Your task to perform on an android device: find which apps use the phone's location Image 0: 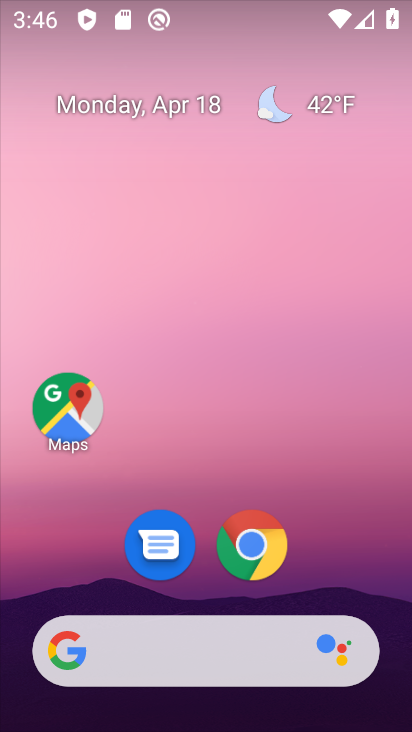
Step 0: drag from (348, 560) to (323, 107)
Your task to perform on an android device: find which apps use the phone's location Image 1: 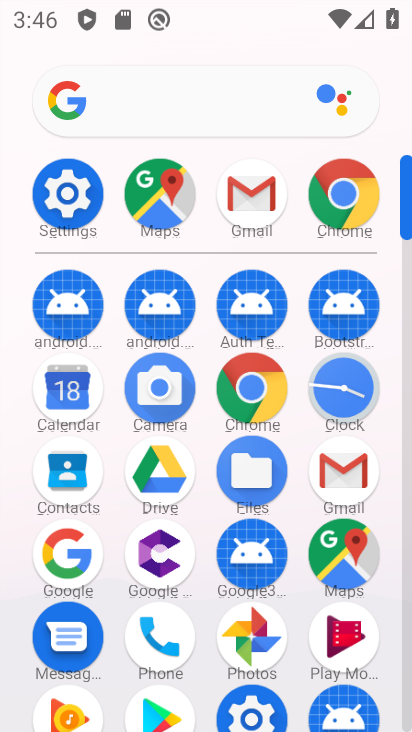
Step 1: drag from (198, 582) to (209, 338)
Your task to perform on an android device: find which apps use the phone's location Image 2: 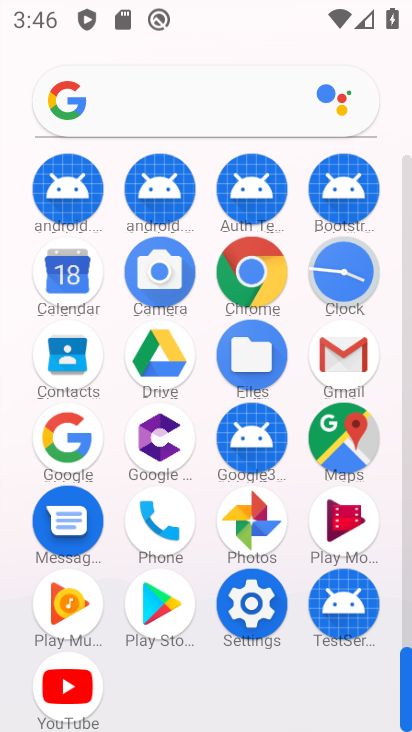
Step 2: click (249, 605)
Your task to perform on an android device: find which apps use the phone's location Image 3: 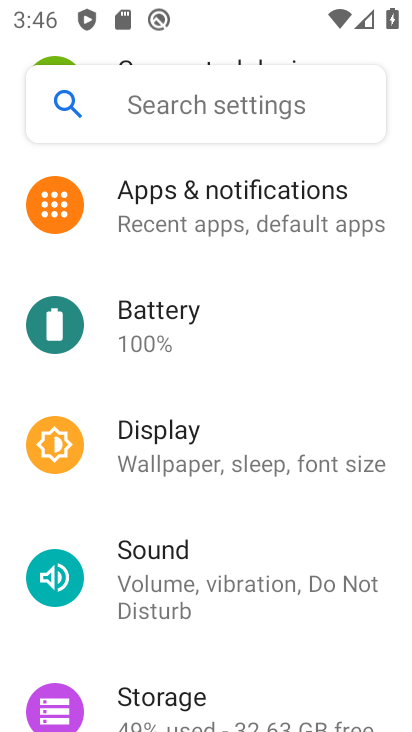
Step 3: drag from (390, 302) to (382, 509)
Your task to perform on an android device: find which apps use the phone's location Image 4: 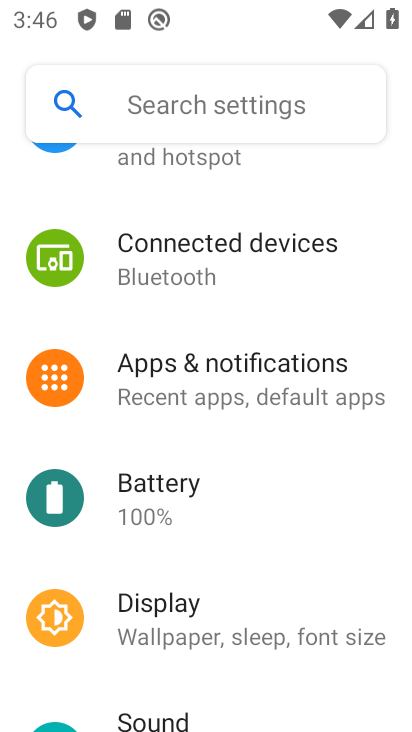
Step 4: drag from (385, 262) to (371, 488)
Your task to perform on an android device: find which apps use the phone's location Image 5: 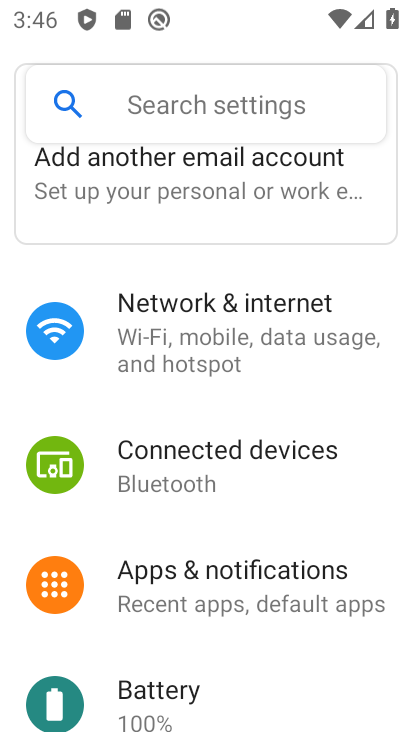
Step 5: drag from (368, 518) to (379, 342)
Your task to perform on an android device: find which apps use the phone's location Image 6: 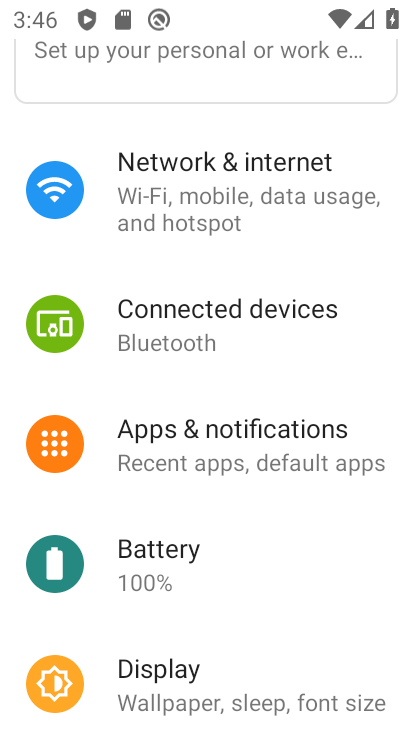
Step 6: drag from (335, 566) to (355, 391)
Your task to perform on an android device: find which apps use the phone's location Image 7: 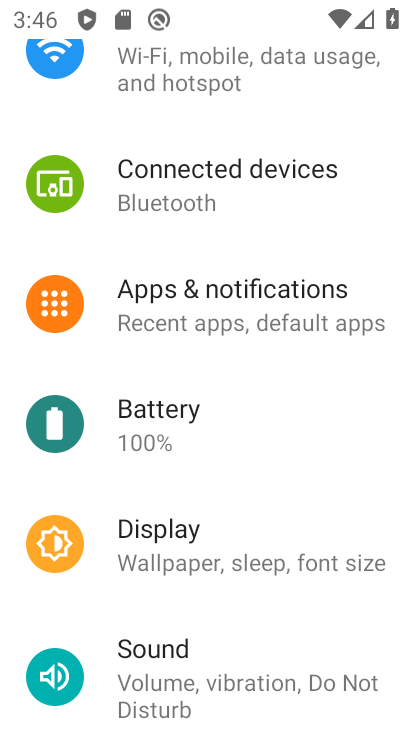
Step 7: drag from (365, 490) to (363, 290)
Your task to perform on an android device: find which apps use the phone's location Image 8: 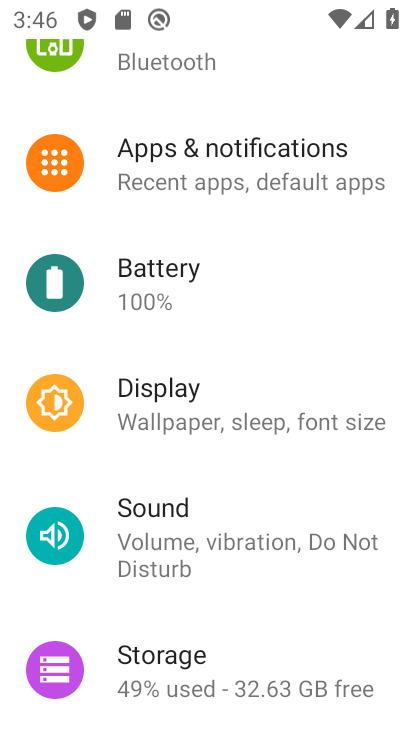
Step 8: drag from (342, 576) to (358, 367)
Your task to perform on an android device: find which apps use the phone's location Image 9: 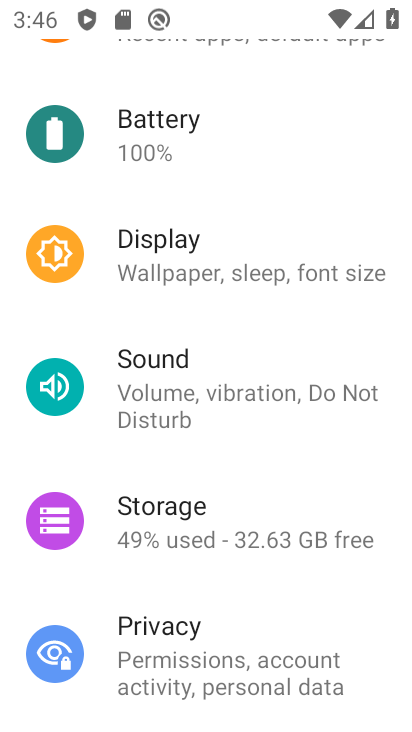
Step 9: drag from (361, 595) to (364, 384)
Your task to perform on an android device: find which apps use the phone's location Image 10: 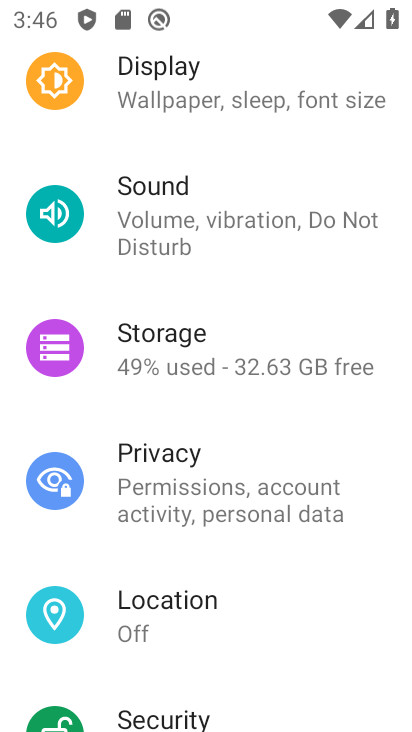
Step 10: click (170, 597)
Your task to perform on an android device: find which apps use the phone's location Image 11: 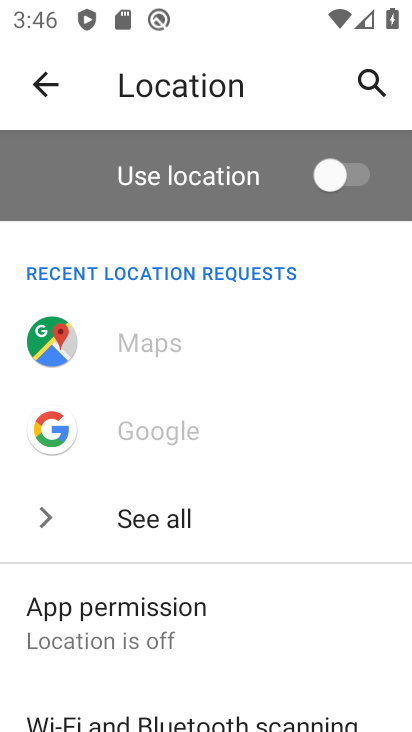
Step 11: click (137, 617)
Your task to perform on an android device: find which apps use the phone's location Image 12: 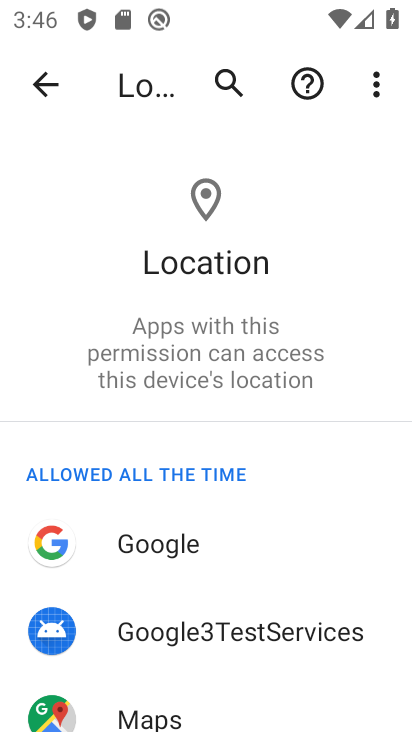
Step 12: drag from (335, 583) to (338, 356)
Your task to perform on an android device: find which apps use the phone's location Image 13: 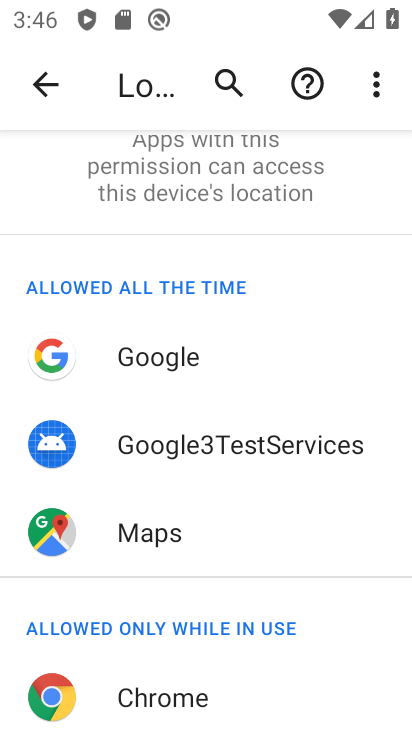
Step 13: drag from (369, 605) to (366, 405)
Your task to perform on an android device: find which apps use the phone's location Image 14: 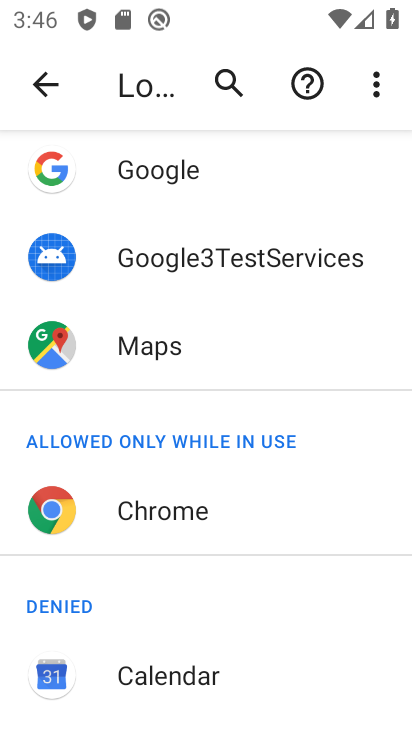
Step 14: drag from (360, 633) to (359, 487)
Your task to perform on an android device: find which apps use the phone's location Image 15: 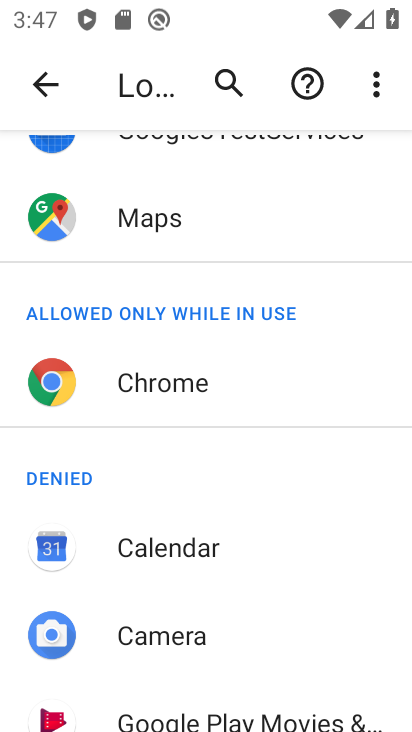
Step 15: drag from (365, 605) to (366, 406)
Your task to perform on an android device: find which apps use the phone's location Image 16: 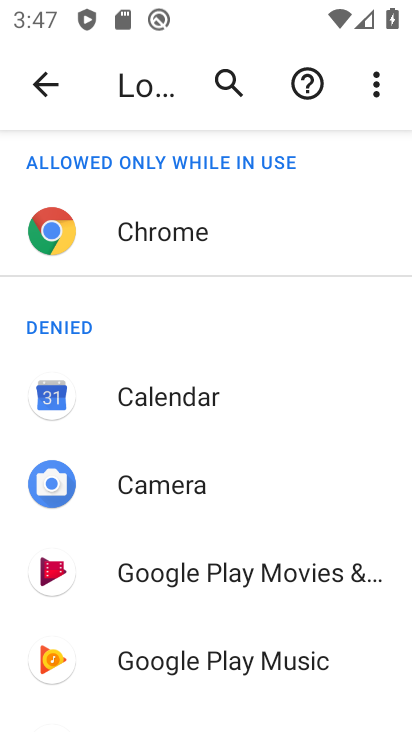
Step 16: drag from (379, 635) to (382, 429)
Your task to perform on an android device: find which apps use the phone's location Image 17: 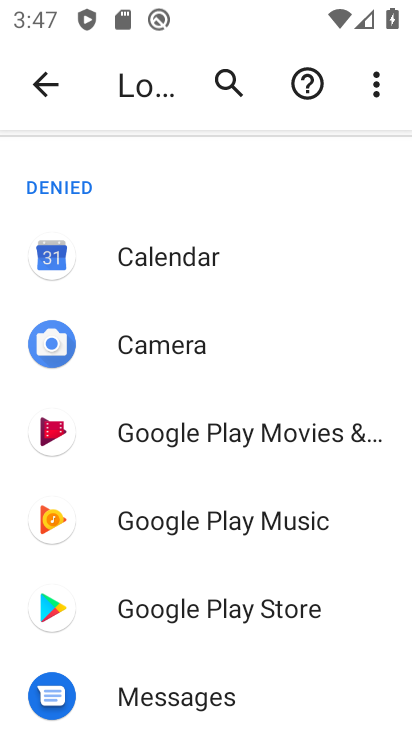
Step 17: drag from (370, 658) to (364, 360)
Your task to perform on an android device: find which apps use the phone's location Image 18: 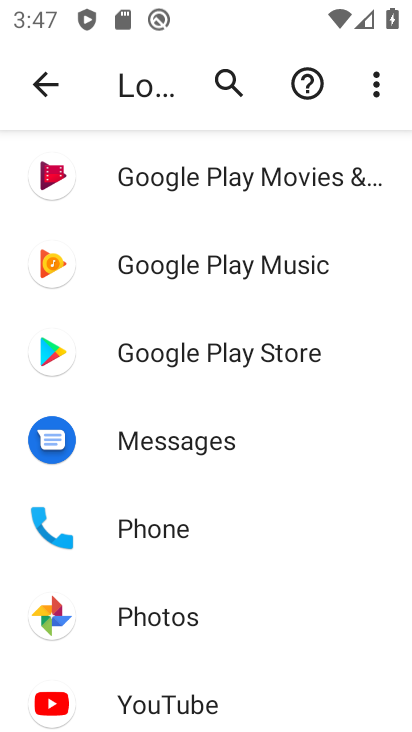
Step 18: click (190, 611)
Your task to perform on an android device: find which apps use the phone's location Image 19: 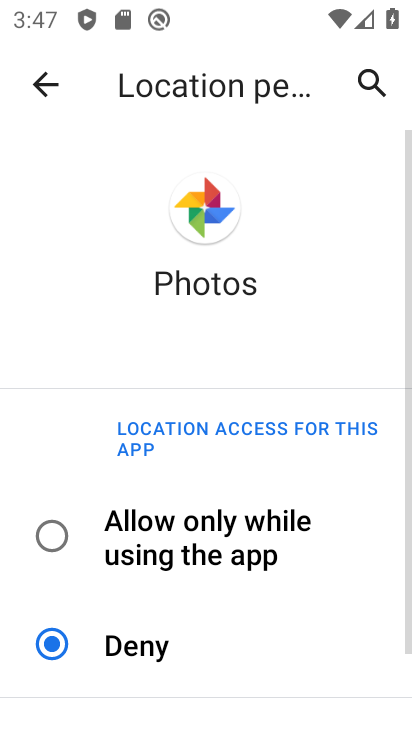
Step 19: click (83, 547)
Your task to perform on an android device: find which apps use the phone's location Image 20: 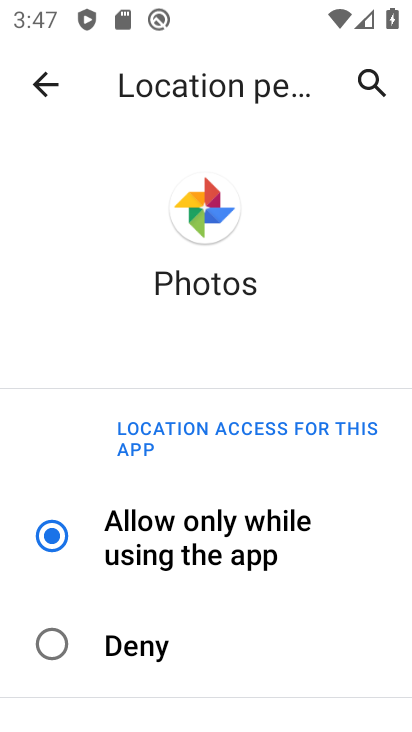
Step 20: task complete